Your task to perform on an android device: Open display settings Image 0: 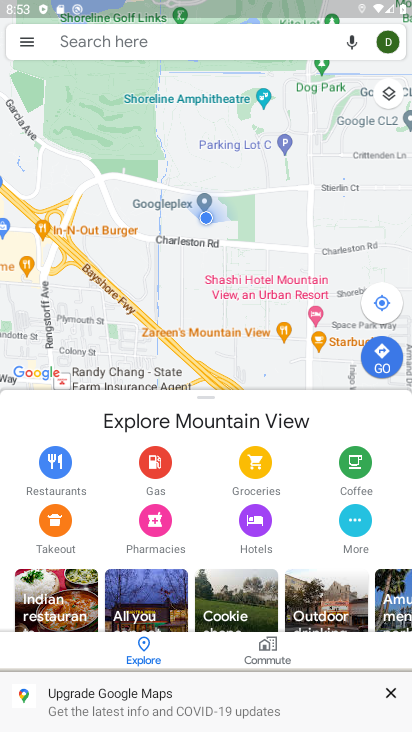
Step 0: press home button
Your task to perform on an android device: Open display settings Image 1: 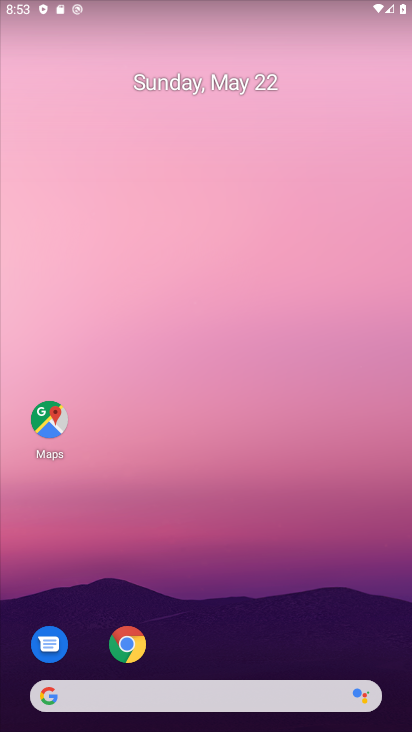
Step 1: drag from (237, 672) to (193, 359)
Your task to perform on an android device: Open display settings Image 2: 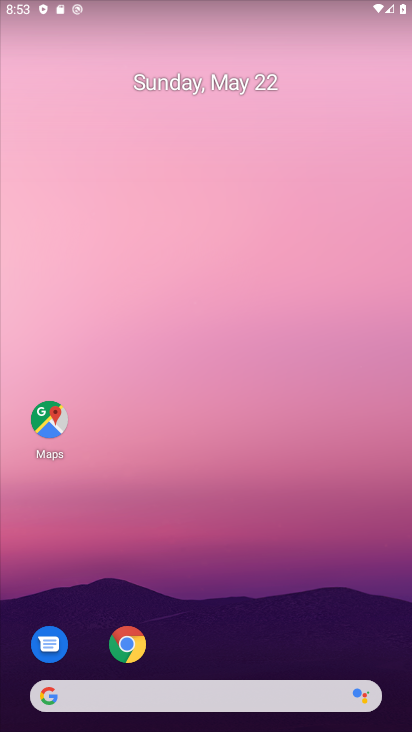
Step 2: click (182, 417)
Your task to perform on an android device: Open display settings Image 3: 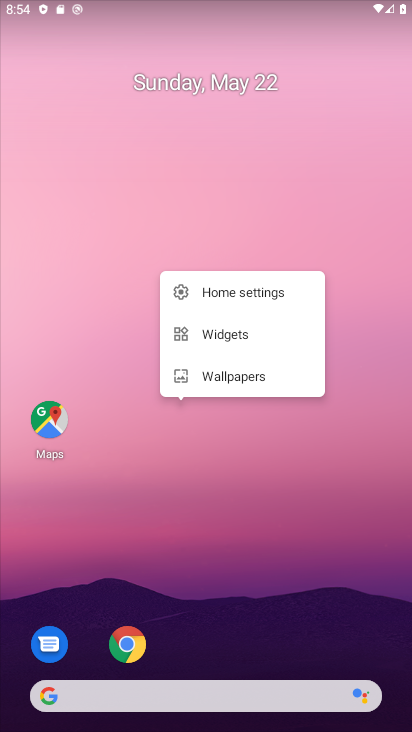
Step 3: drag from (172, 690) to (142, 58)
Your task to perform on an android device: Open display settings Image 4: 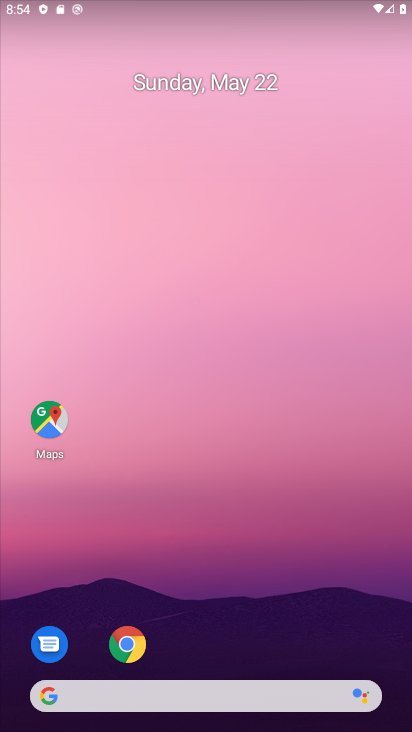
Step 4: drag from (205, 705) to (177, 84)
Your task to perform on an android device: Open display settings Image 5: 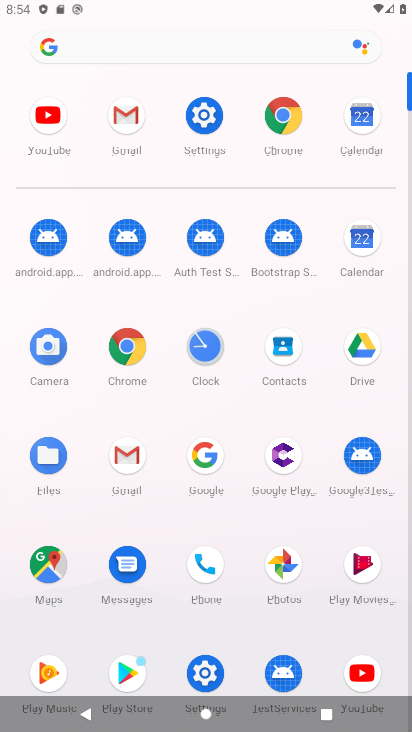
Step 5: click (205, 127)
Your task to perform on an android device: Open display settings Image 6: 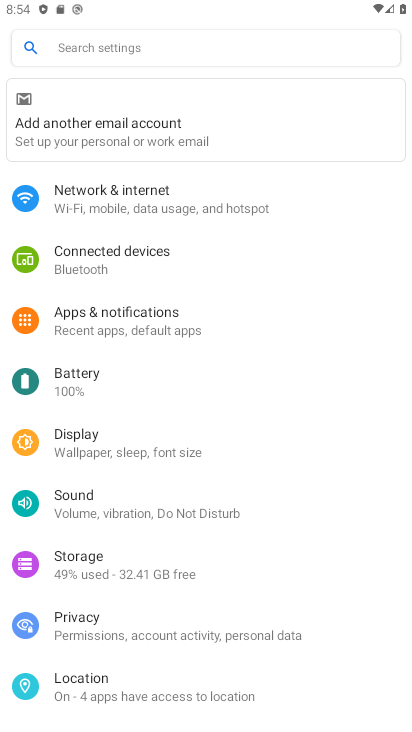
Step 6: click (90, 438)
Your task to perform on an android device: Open display settings Image 7: 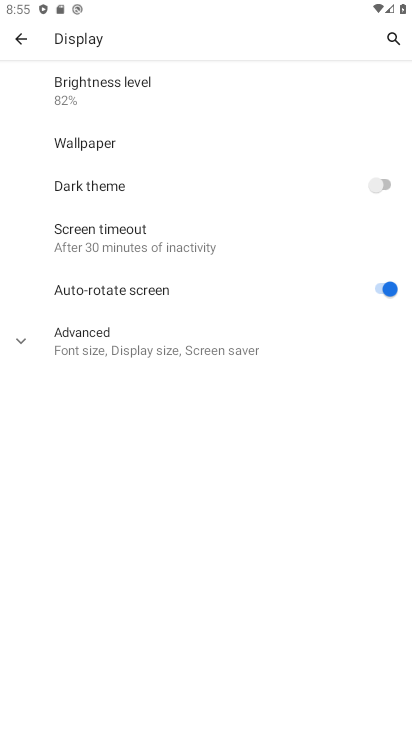
Step 7: task complete